Your task to perform on an android device: Is it going to rain today? Image 0: 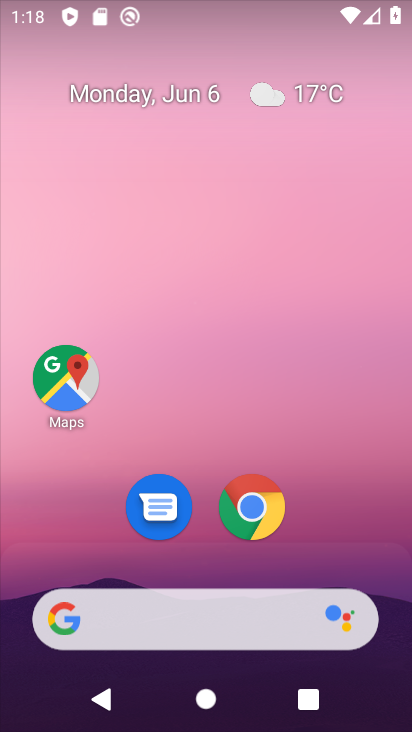
Step 0: drag from (341, 490) to (220, 1)
Your task to perform on an android device: Is it going to rain today? Image 1: 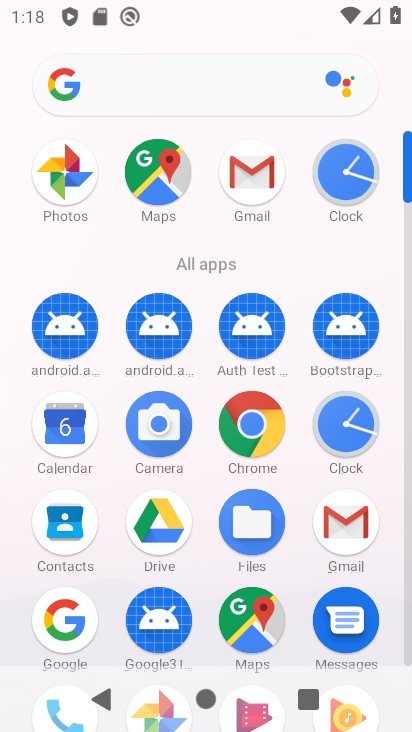
Step 1: drag from (15, 540) to (22, 239)
Your task to perform on an android device: Is it going to rain today? Image 2: 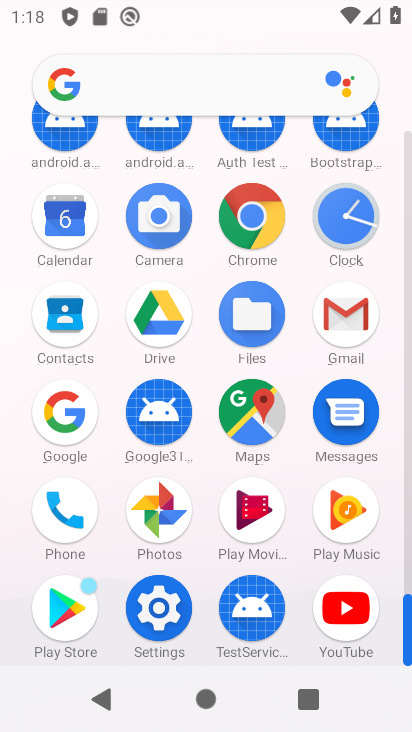
Step 2: click (254, 215)
Your task to perform on an android device: Is it going to rain today? Image 3: 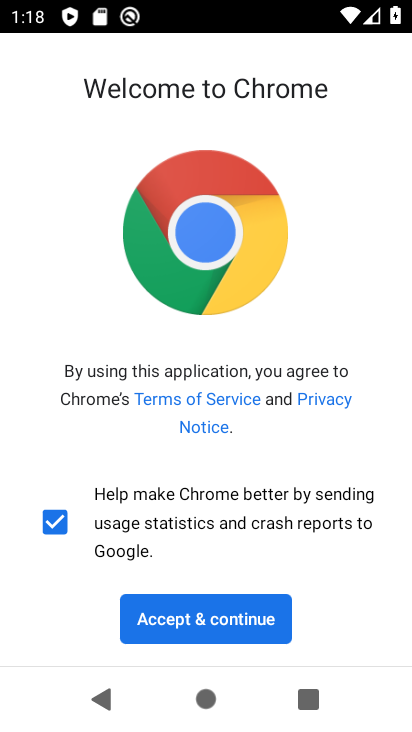
Step 3: click (240, 610)
Your task to perform on an android device: Is it going to rain today? Image 4: 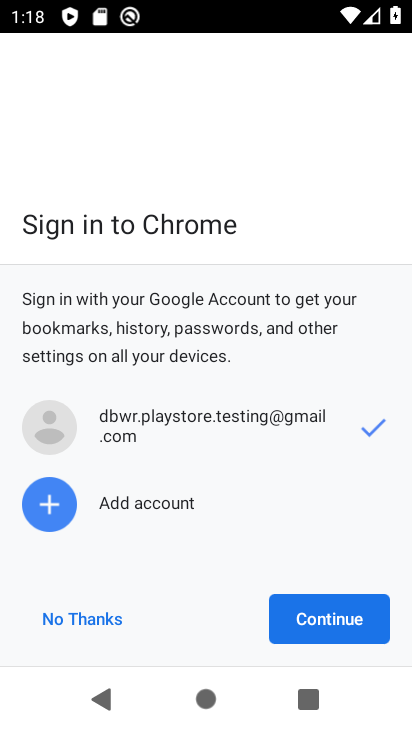
Step 4: click (301, 624)
Your task to perform on an android device: Is it going to rain today? Image 5: 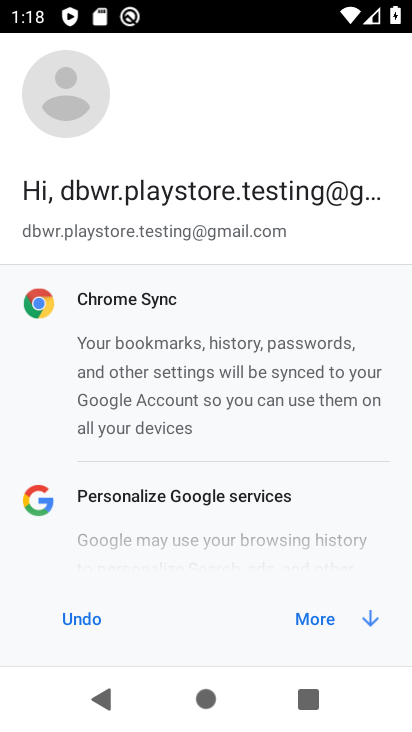
Step 5: click (324, 623)
Your task to perform on an android device: Is it going to rain today? Image 6: 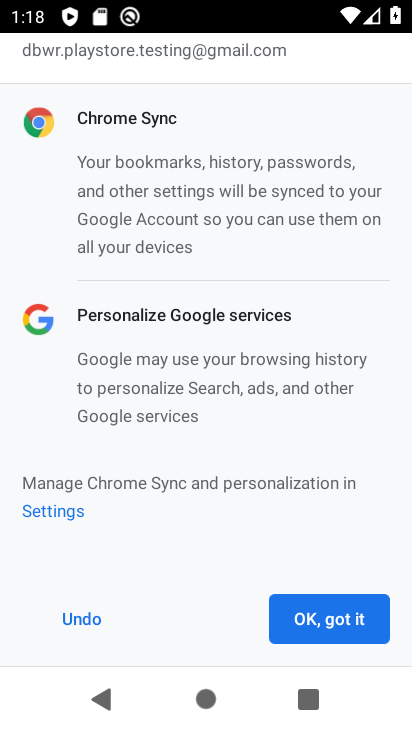
Step 6: click (286, 616)
Your task to perform on an android device: Is it going to rain today? Image 7: 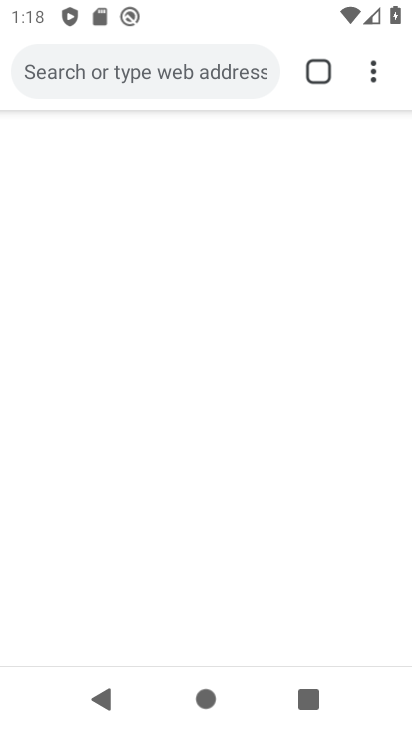
Step 7: click (195, 67)
Your task to perform on an android device: Is it going to rain today? Image 8: 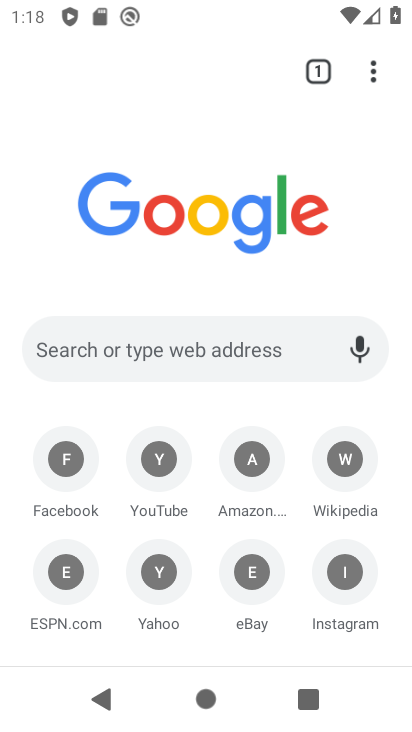
Step 8: click (246, 350)
Your task to perform on an android device: Is it going to rain today? Image 9: 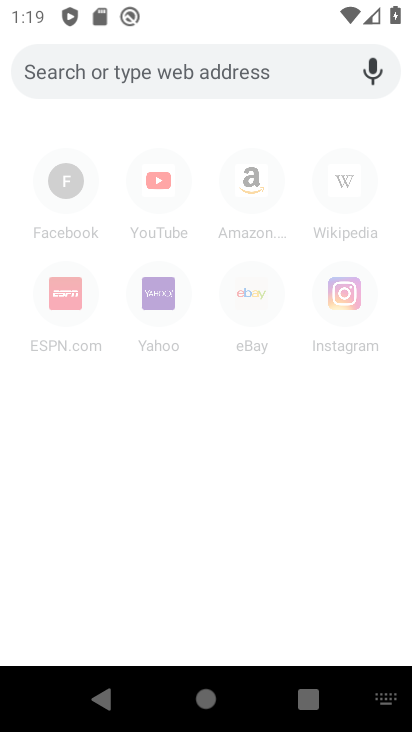
Step 9: type "Is it going to rain today?"
Your task to perform on an android device: Is it going to rain today? Image 10: 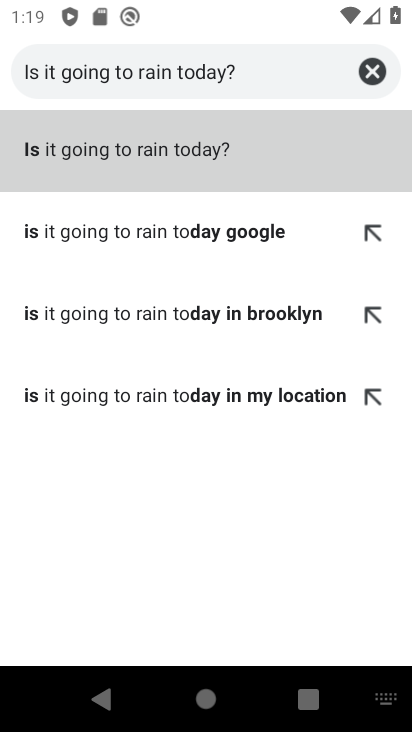
Step 10: click (164, 140)
Your task to perform on an android device: Is it going to rain today? Image 11: 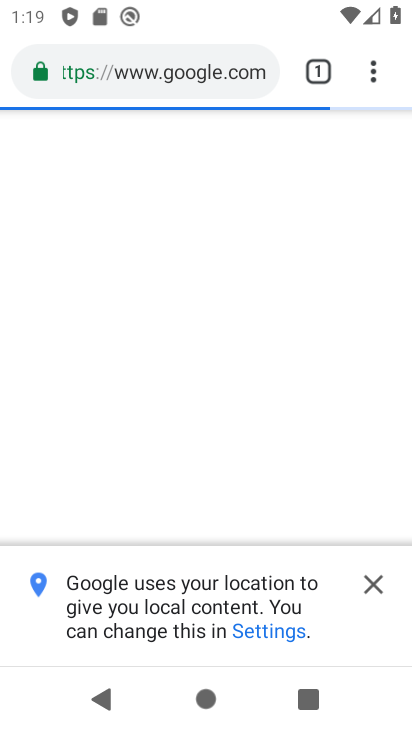
Step 11: click (387, 587)
Your task to perform on an android device: Is it going to rain today? Image 12: 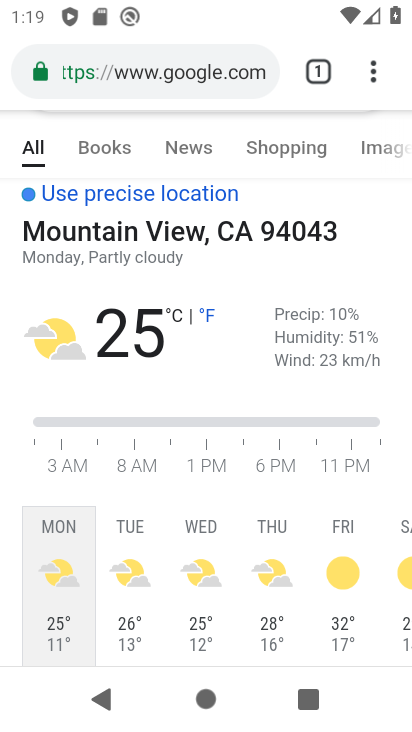
Step 12: task complete